Your task to perform on an android device: Open Google Image 0: 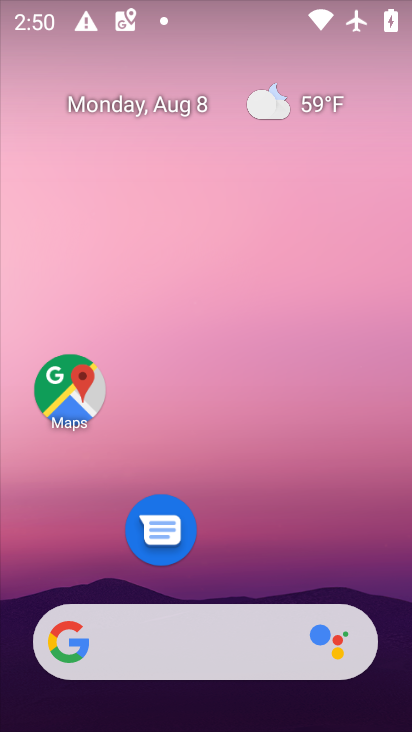
Step 0: drag from (214, 569) to (215, 90)
Your task to perform on an android device: Open Google Image 1: 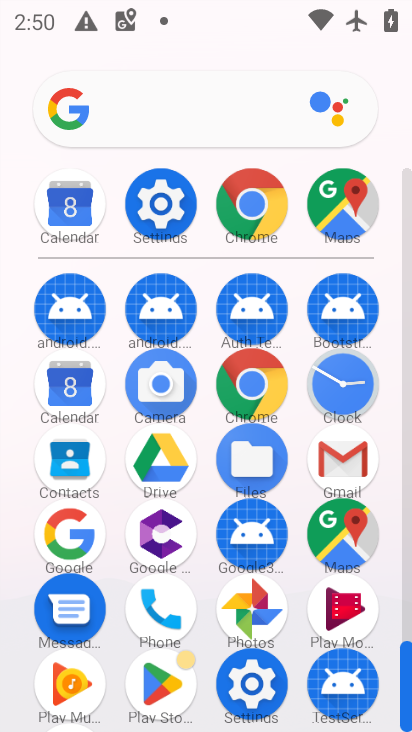
Step 1: click (73, 530)
Your task to perform on an android device: Open Google Image 2: 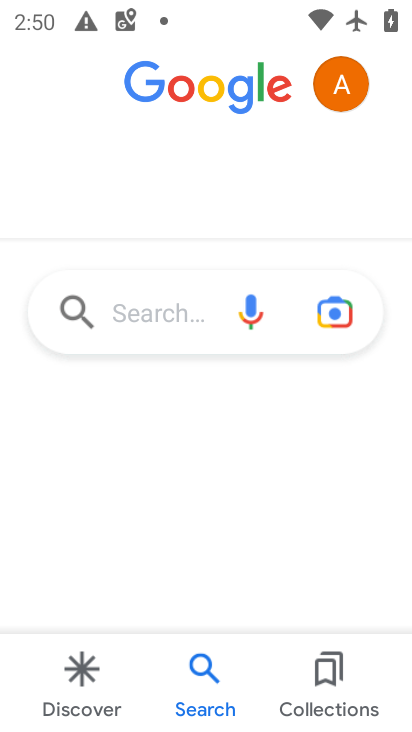
Step 2: task complete